Your task to perform on an android device: change the clock style Image 0: 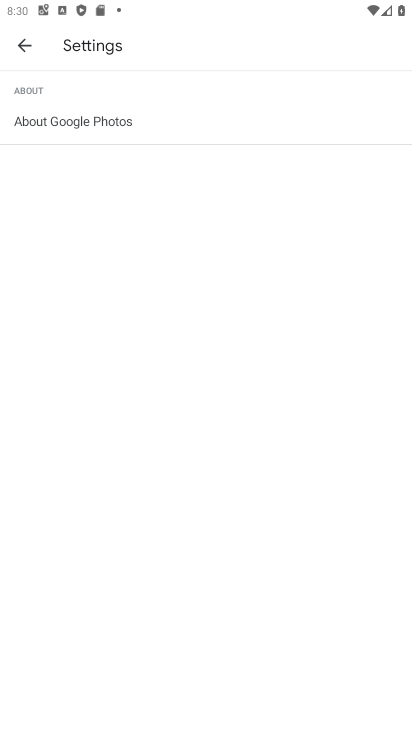
Step 0: press home button
Your task to perform on an android device: change the clock style Image 1: 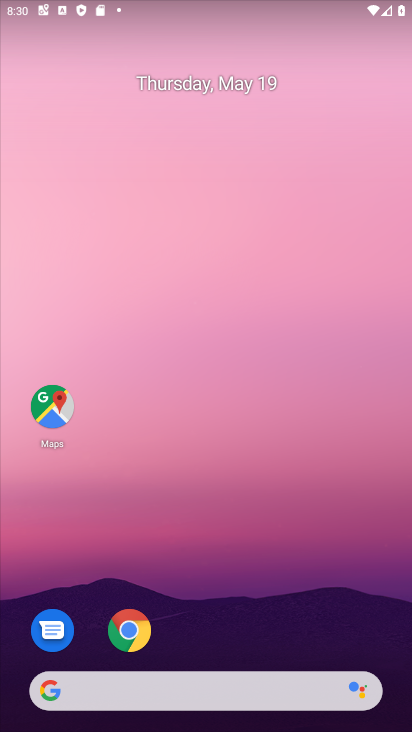
Step 1: drag from (383, 635) to (293, 37)
Your task to perform on an android device: change the clock style Image 2: 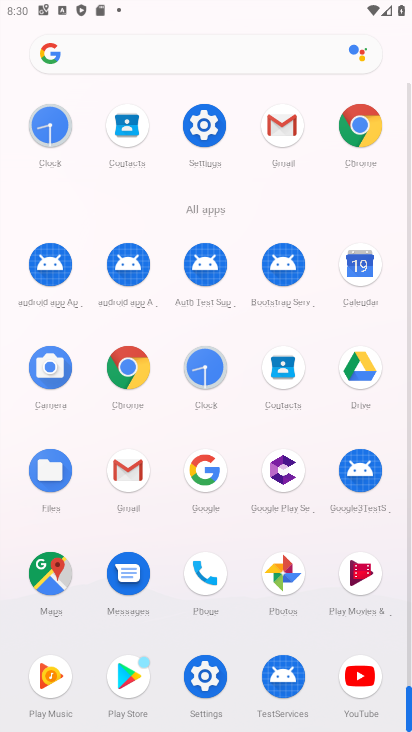
Step 2: click (206, 678)
Your task to perform on an android device: change the clock style Image 3: 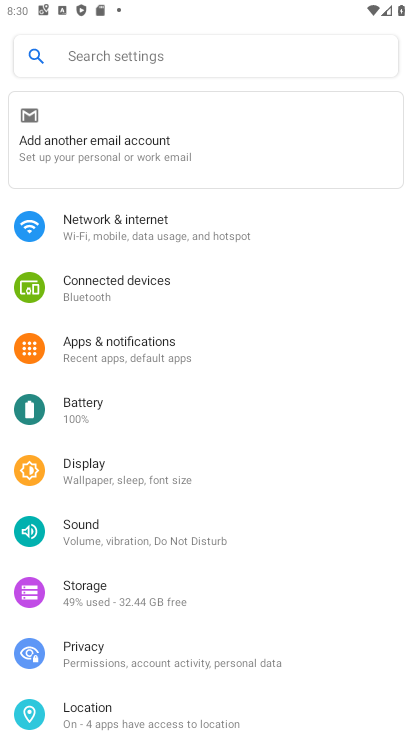
Step 3: press home button
Your task to perform on an android device: change the clock style Image 4: 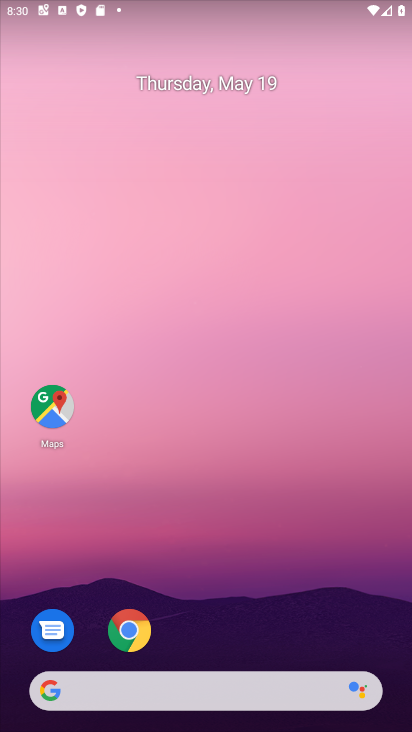
Step 4: drag from (369, 624) to (333, 54)
Your task to perform on an android device: change the clock style Image 5: 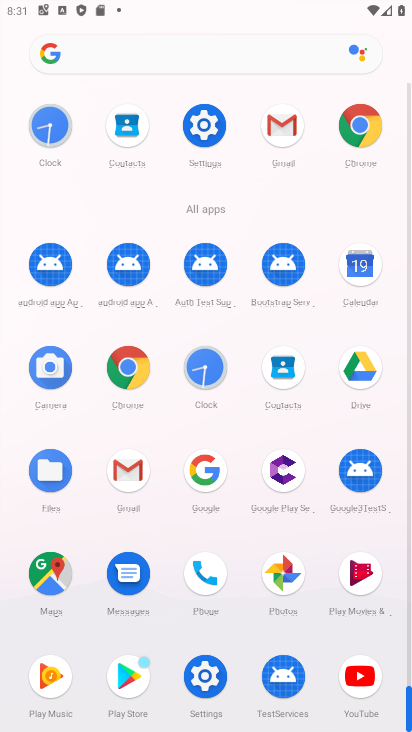
Step 5: click (203, 367)
Your task to perform on an android device: change the clock style Image 6: 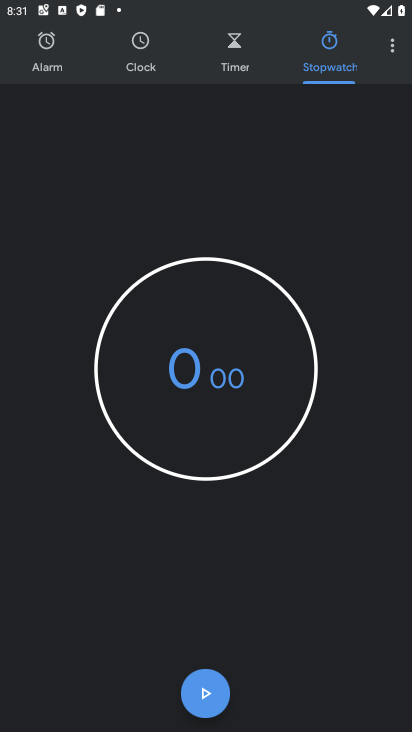
Step 6: click (391, 49)
Your task to perform on an android device: change the clock style Image 7: 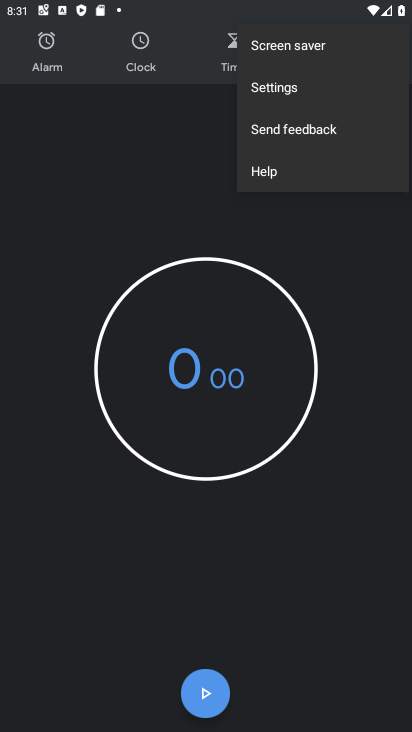
Step 7: click (272, 86)
Your task to perform on an android device: change the clock style Image 8: 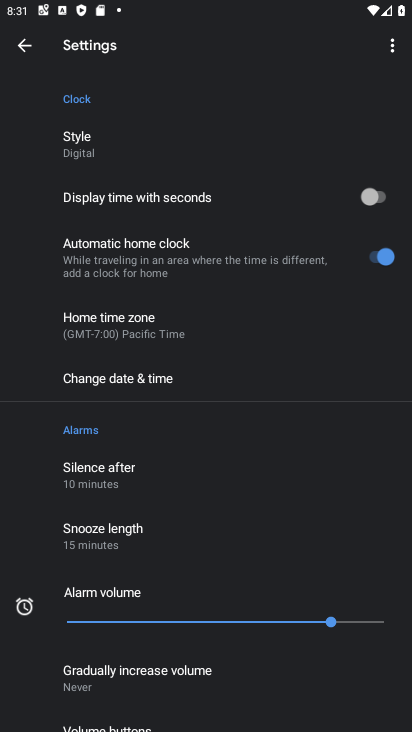
Step 8: click (78, 139)
Your task to perform on an android device: change the clock style Image 9: 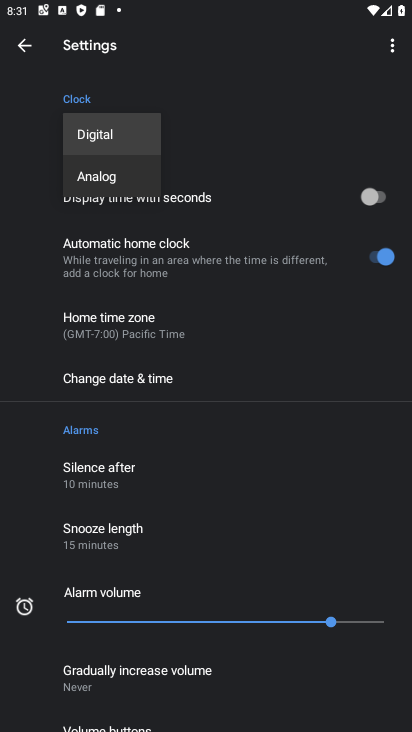
Step 9: click (104, 179)
Your task to perform on an android device: change the clock style Image 10: 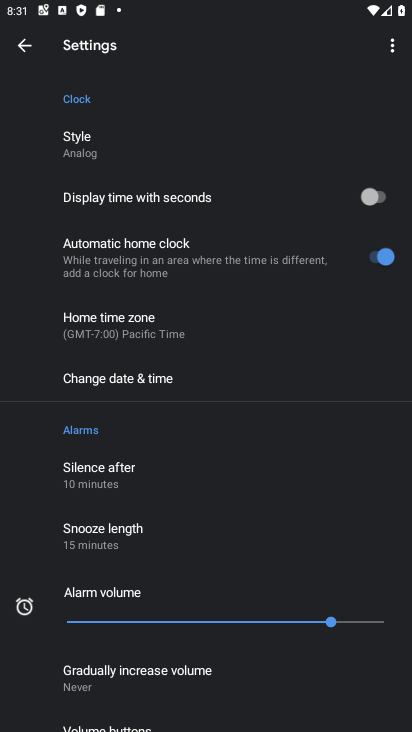
Step 10: task complete